Your task to perform on an android device: open sync settings in chrome Image 0: 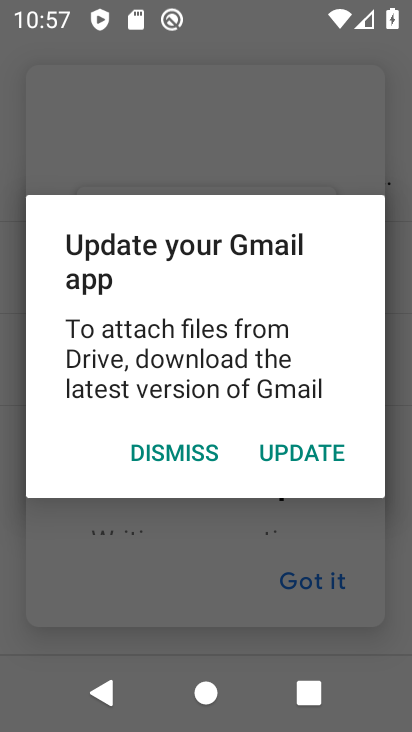
Step 0: press home button
Your task to perform on an android device: open sync settings in chrome Image 1: 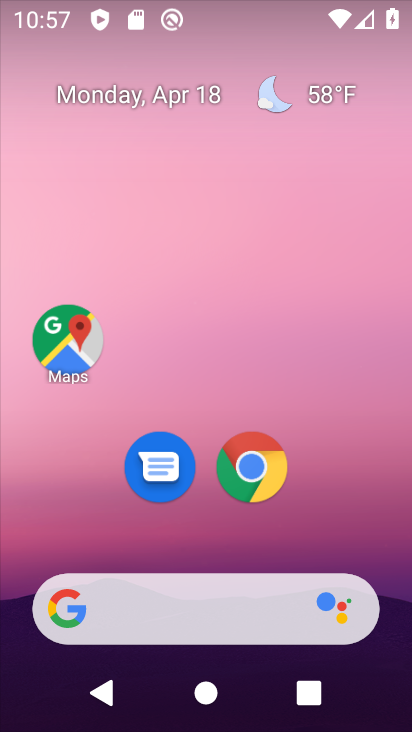
Step 1: click (256, 474)
Your task to perform on an android device: open sync settings in chrome Image 2: 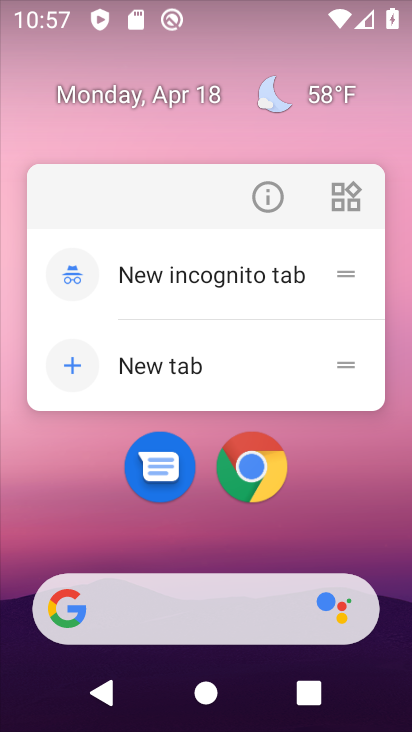
Step 2: click (252, 479)
Your task to perform on an android device: open sync settings in chrome Image 3: 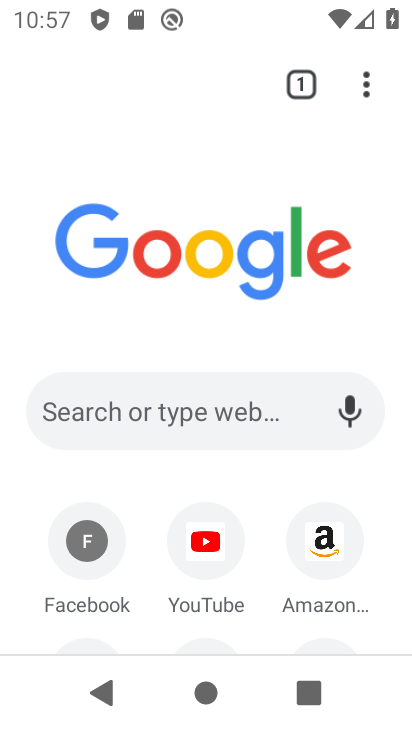
Step 3: click (369, 82)
Your task to perform on an android device: open sync settings in chrome Image 4: 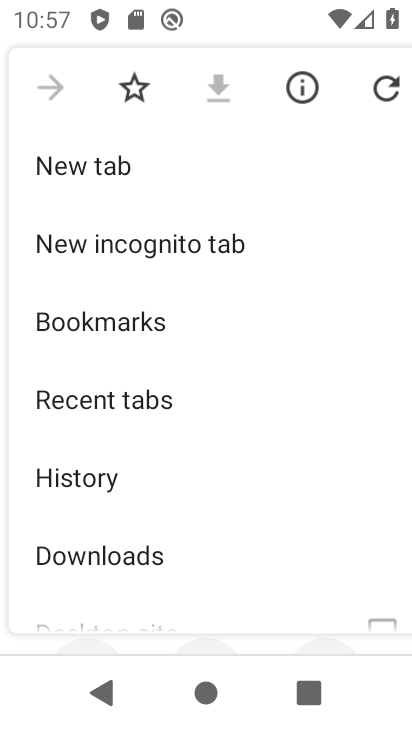
Step 4: drag from (173, 554) to (200, 163)
Your task to perform on an android device: open sync settings in chrome Image 5: 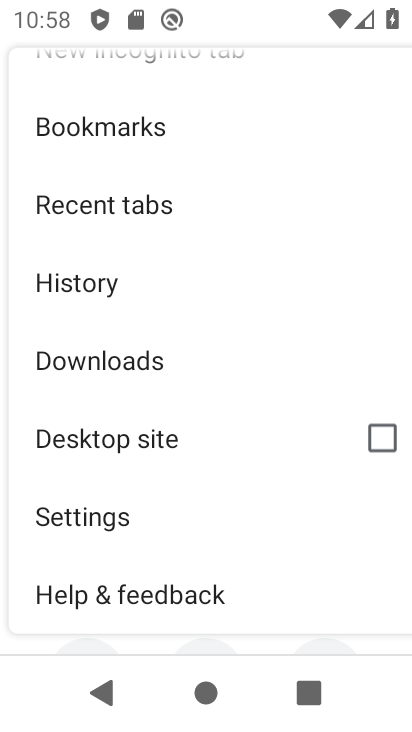
Step 5: click (155, 543)
Your task to perform on an android device: open sync settings in chrome Image 6: 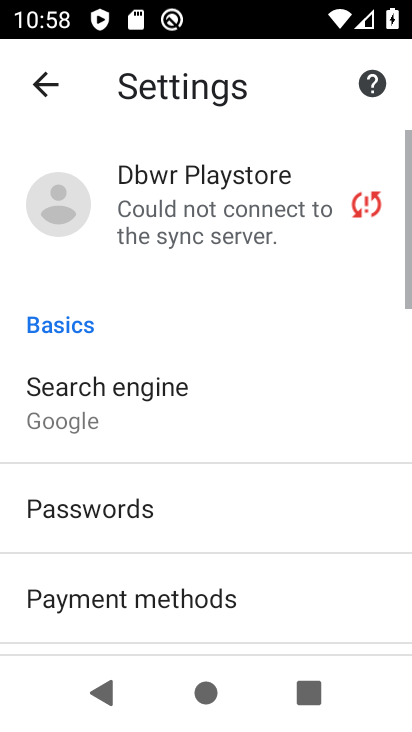
Step 6: drag from (215, 539) to (235, 136)
Your task to perform on an android device: open sync settings in chrome Image 7: 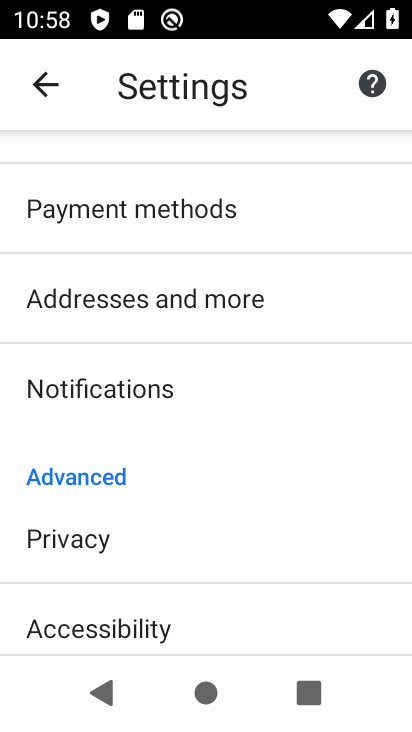
Step 7: drag from (217, 452) to (222, 207)
Your task to perform on an android device: open sync settings in chrome Image 8: 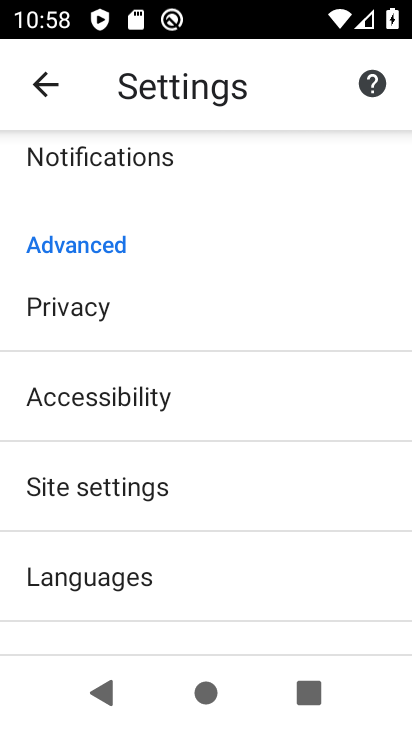
Step 8: click (188, 484)
Your task to perform on an android device: open sync settings in chrome Image 9: 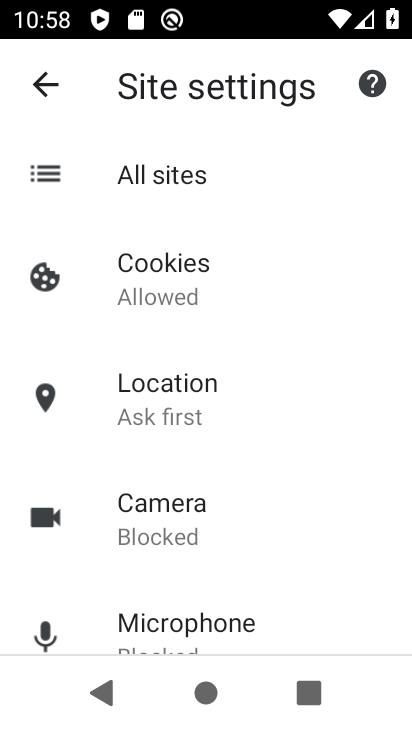
Step 9: drag from (211, 556) to (217, 167)
Your task to perform on an android device: open sync settings in chrome Image 10: 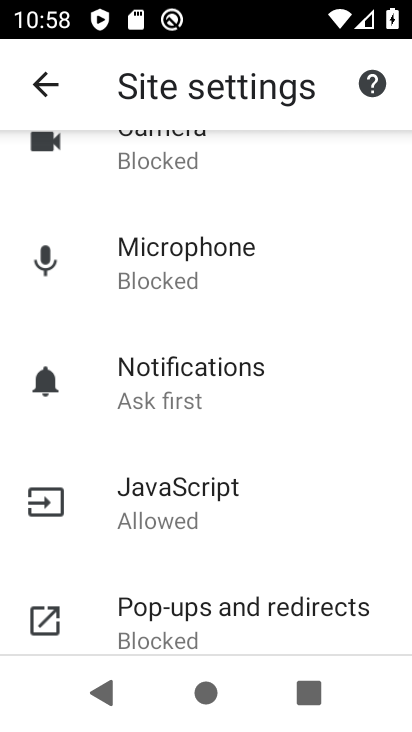
Step 10: drag from (247, 391) to (253, 248)
Your task to perform on an android device: open sync settings in chrome Image 11: 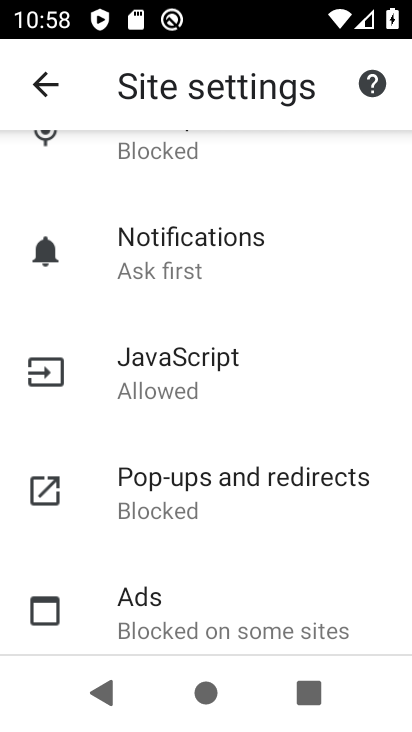
Step 11: drag from (221, 587) to (238, 239)
Your task to perform on an android device: open sync settings in chrome Image 12: 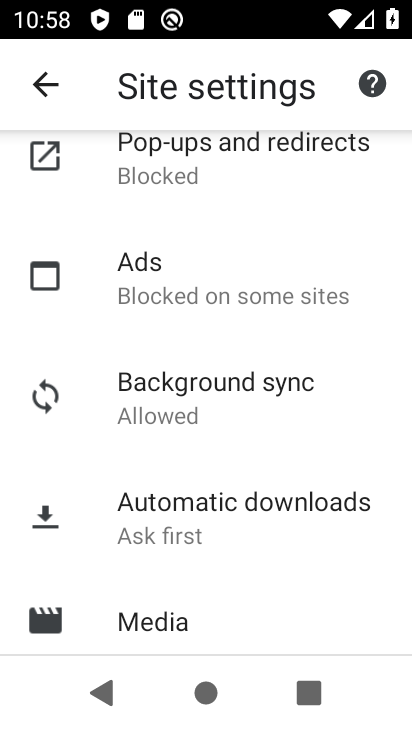
Step 12: click (221, 379)
Your task to perform on an android device: open sync settings in chrome Image 13: 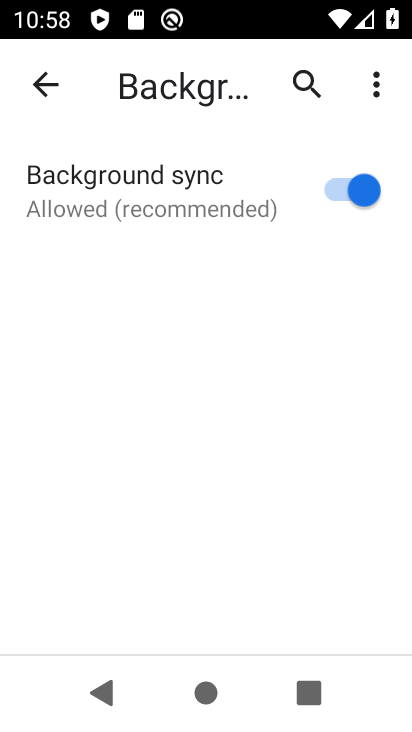
Step 13: task complete